Your task to perform on an android device: toggle data saver in the chrome app Image 0: 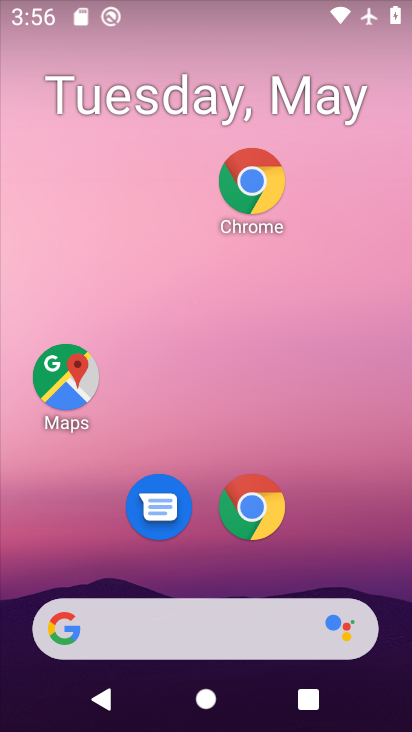
Step 0: drag from (348, 531) to (388, 23)
Your task to perform on an android device: toggle data saver in the chrome app Image 1: 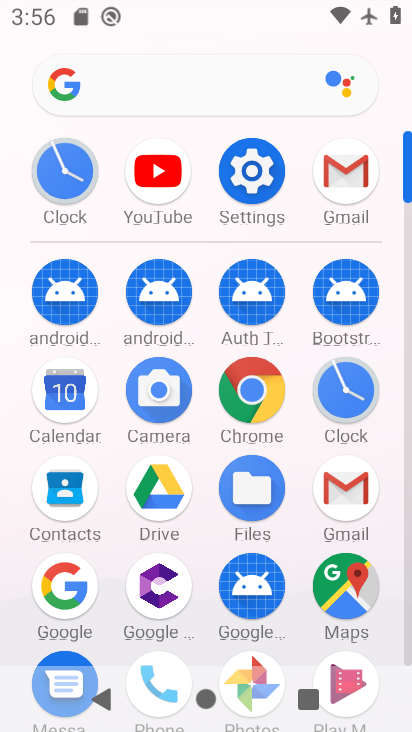
Step 1: click (251, 383)
Your task to perform on an android device: toggle data saver in the chrome app Image 2: 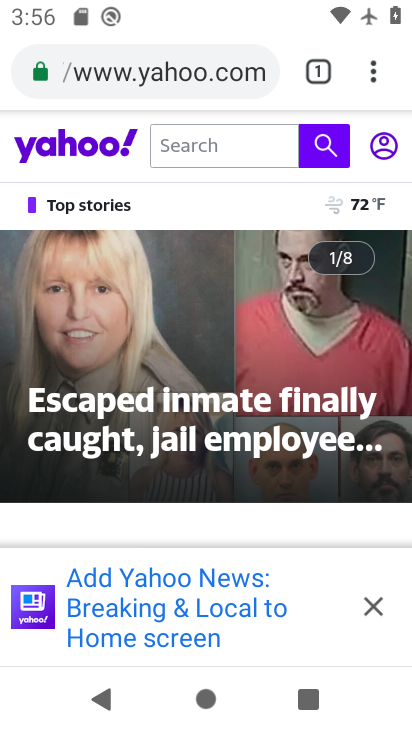
Step 2: drag from (378, 72) to (136, 508)
Your task to perform on an android device: toggle data saver in the chrome app Image 3: 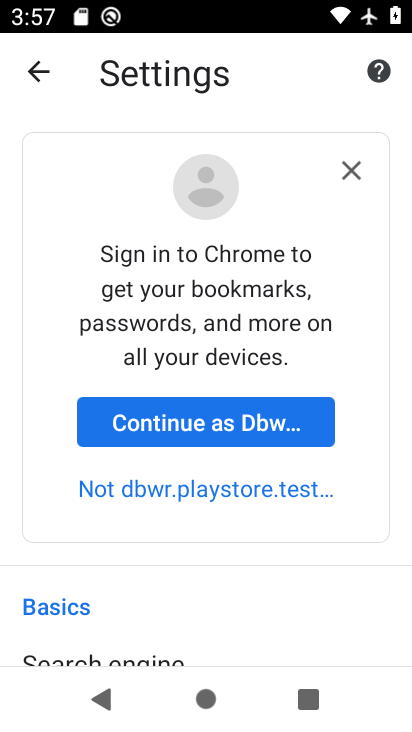
Step 3: drag from (217, 605) to (252, 194)
Your task to perform on an android device: toggle data saver in the chrome app Image 4: 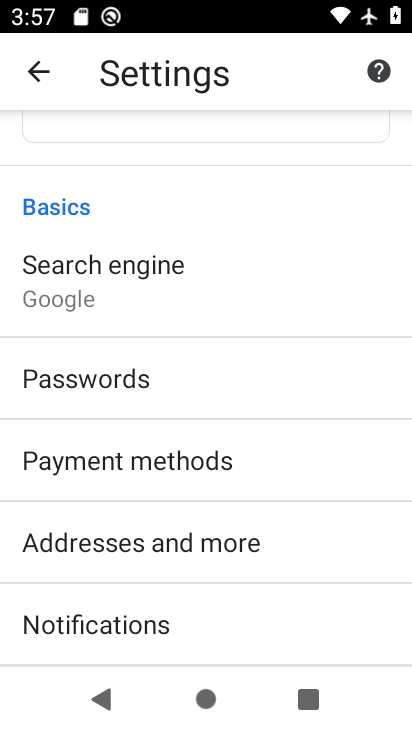
Step 4: drag from (198, 561) to (281, 196)
Your task to perform on an android device: toggle data saver in the chrome app Image 5: 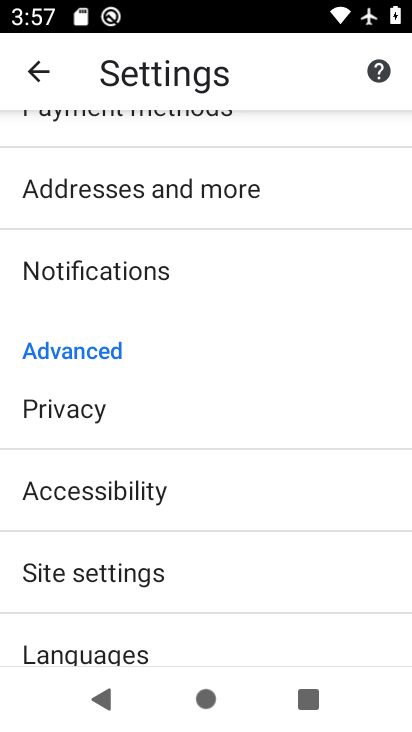
Step 5: drag from (138, 622) to (191, 238)
Your task to perform on an android device: toggle data saver in the chrome app Image 6: 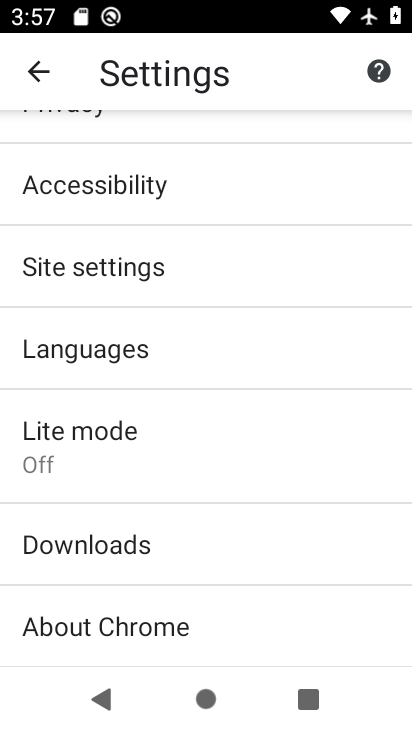
Step 6: click (99, 460)
Your task to perform on an android device: toggle data saver in the chrome app Image 7: 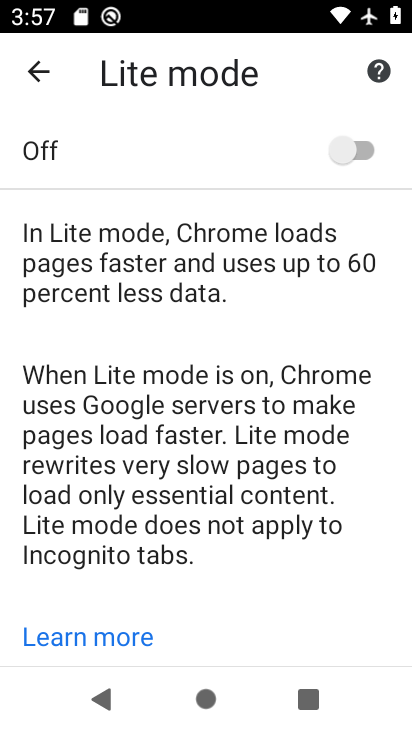
Step 7: drag from (267, 547) to (306, 294)
Your task to perform on an android device: toggle data saver in the chrome app Image 8: 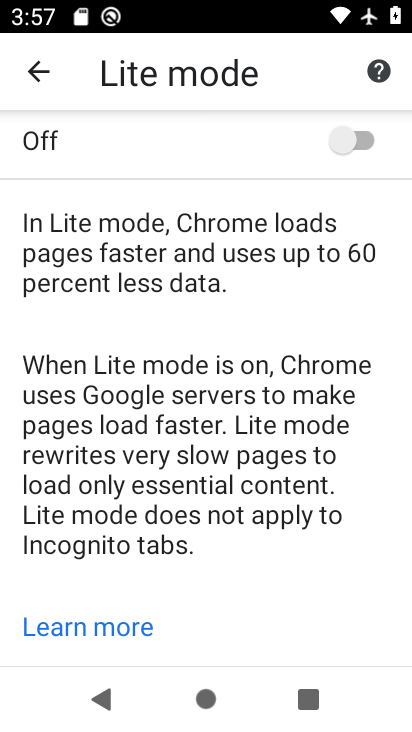
Step 8: drag from (308, 296) to (329, 538)
Your task to perform on an android device: toggle data saver in the chrome app Image 9: 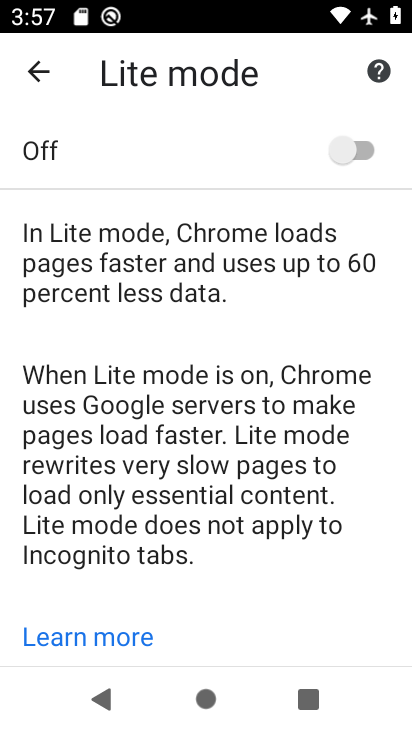
Step 9: click (343, 154)
Your task to perform on an android device: toggle data saver in the chrome app Image 10: 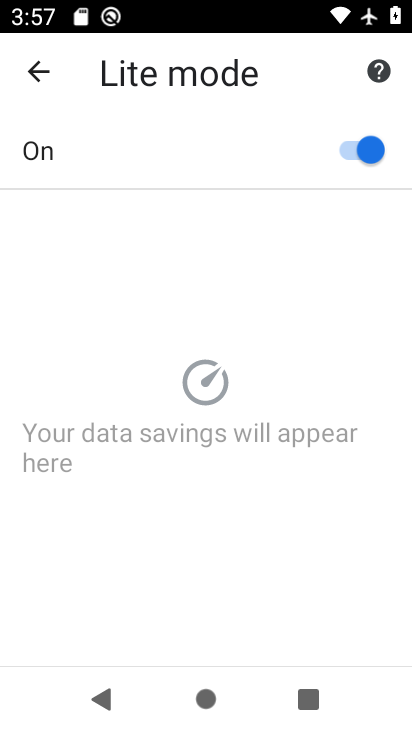
Step 10: task complete